Your task to perform on an android device: Find coffee shops on Maps Image 0: 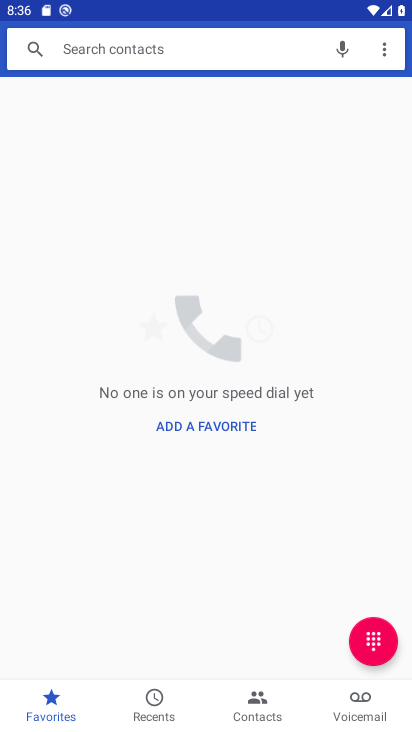
Step 0: press home button
Your task to perform on an android device: Find coffee shops on Maps Image 1: 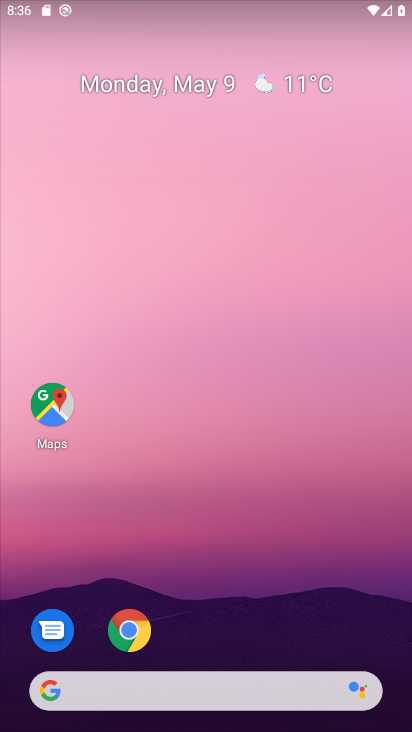
Step 1: click (61, 417)
Your task to perform on an android device: Find coffee shops on Maps Image 2: 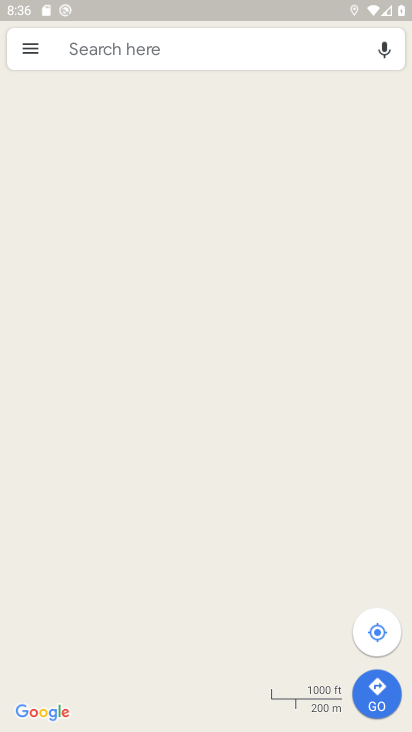
Step 2: click (154, 47)
Your task to perform on an android device: Find coffee shops on Maps Image 3: 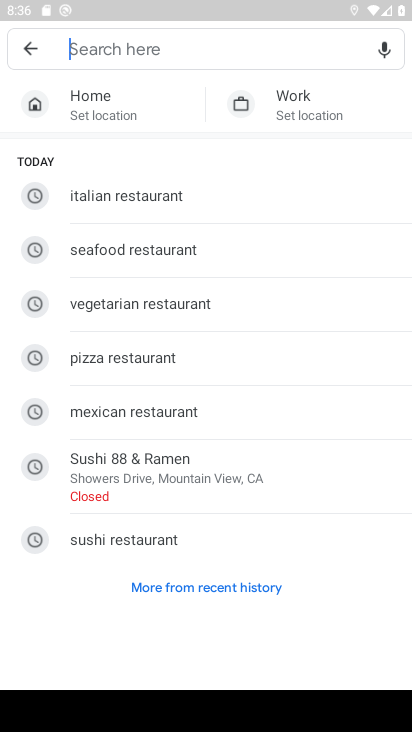
Step 3: type "coffee shop"
Your task to perform on an android device: Find coffee shops on Maps Image 4: 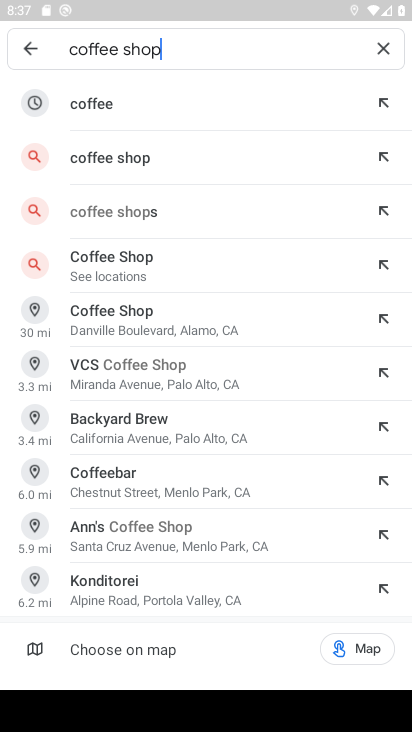
Step 4: click (192, 158)
Your task to perform on an android device: Find coffee shops on Maps Image 5: 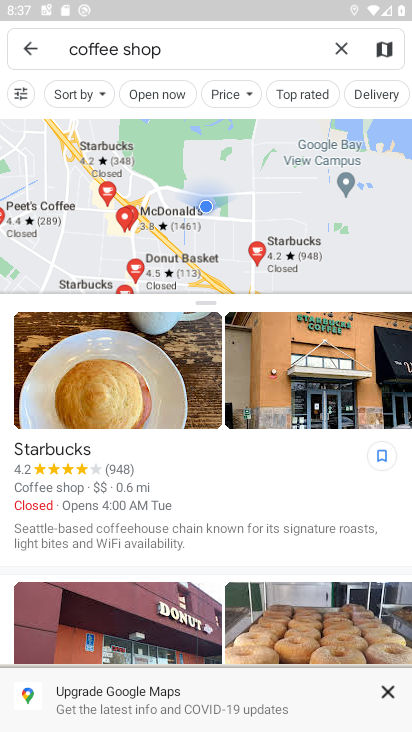
Step 5: task complete